Your task to perform on an android device: turn vacation reply on in the gmail app Image 0: 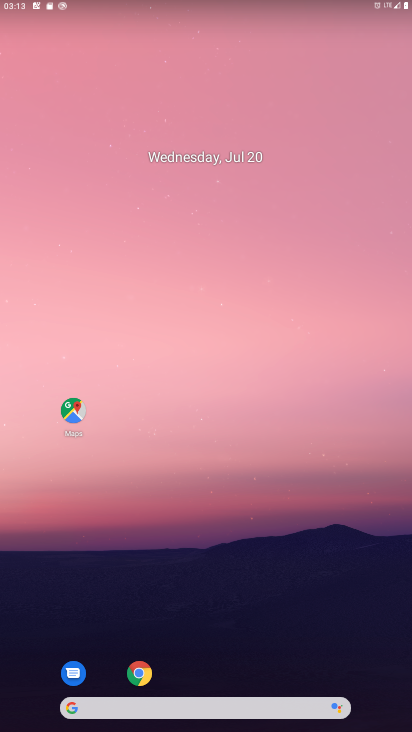
Step 0: drag from (228, 668) to (211, 148)
Your task to perform on an android device: turn vacation reply on in the gmail app Image 1: 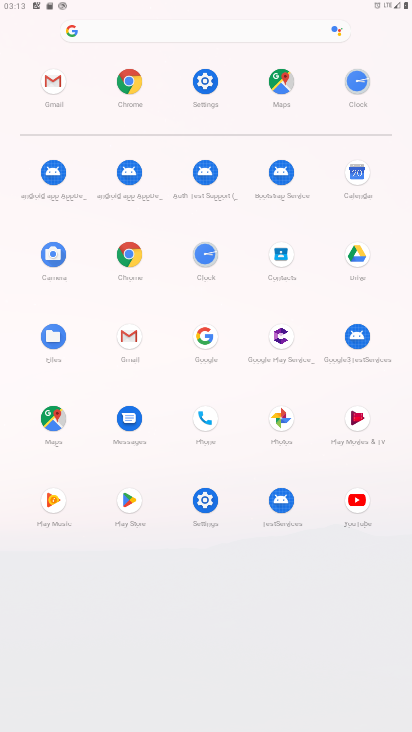
Step 1: click (136, 344)
Your task to perform on an android device: turn vacation reply on in the gmail app Image 2: 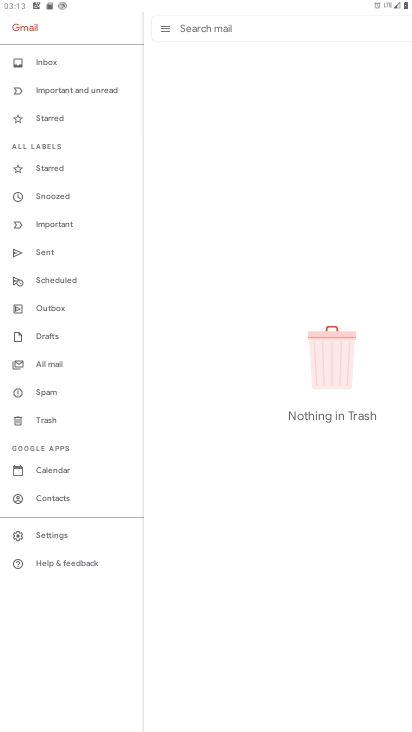
Step 2: click (57, 530)
Your task to perform on an android device: turn vacation reply on in the gmail app Image 3: 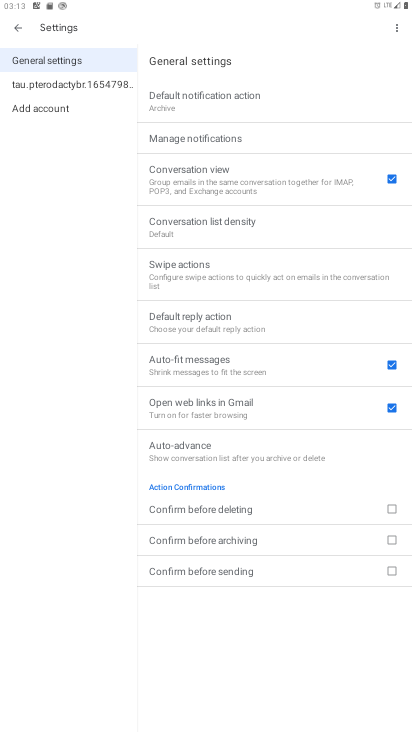
Step 3: click (83, 89)
Your task to perform on an android device: turn vacation reply on in the gmail app Image 4: 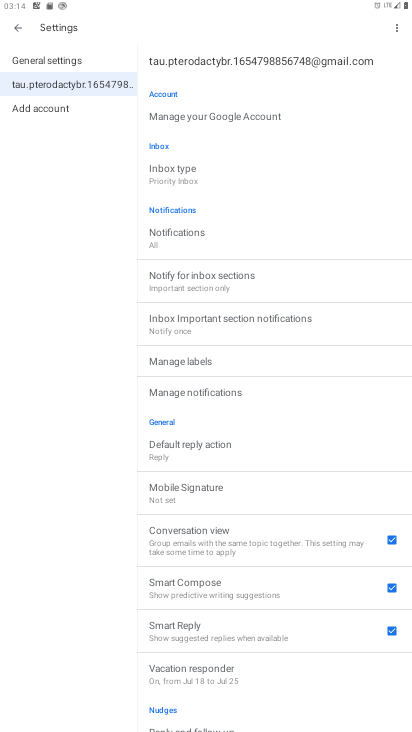
Step 4: click (213, 676)
Your task to perform on an android device: turn vacation reply on in the gmail app Image 5: 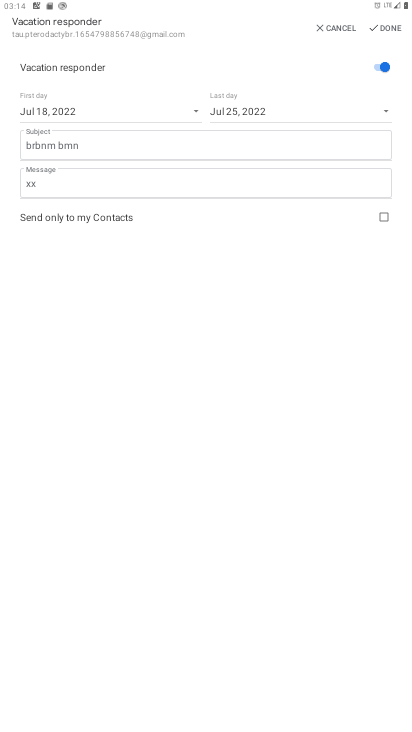
Step 5: task complete